Your task to perform on an android device: Open the web browser Image 0: 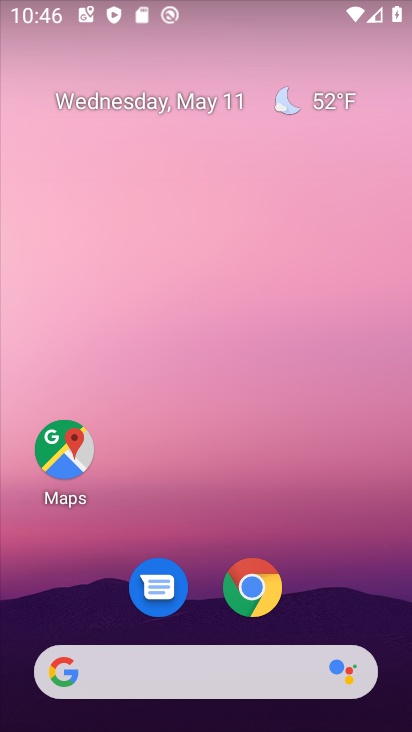
Step 0: click (236, 204)
Your task to perform on an android device: Open the web browser Image 1: 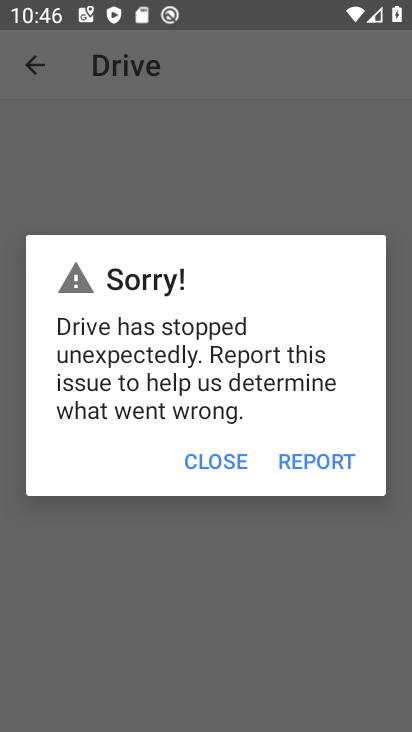
Step 1: press home button
Your task to perform on an android device: Open the web browser Image 2: 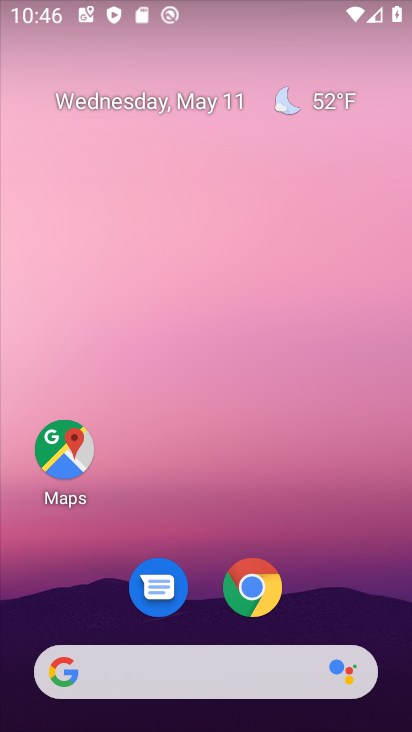
Step 2: drag from (242, 708) to (295, 297)
Your task to perform on an android device: Open the web browser Image 3: 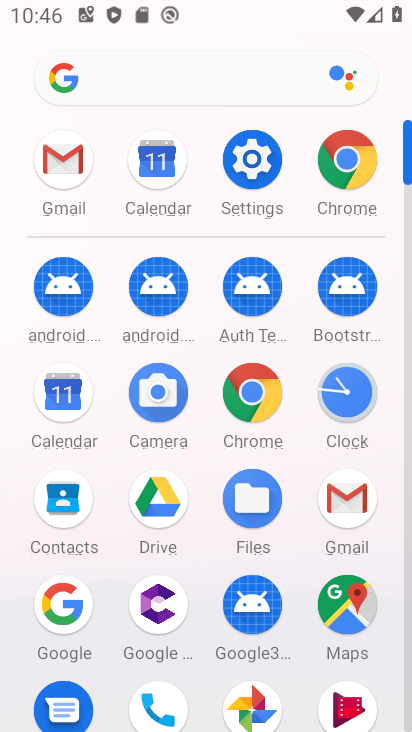
Step 3: click (344, 165)
Your task to perform on an android device: Open the web browser Image 4: 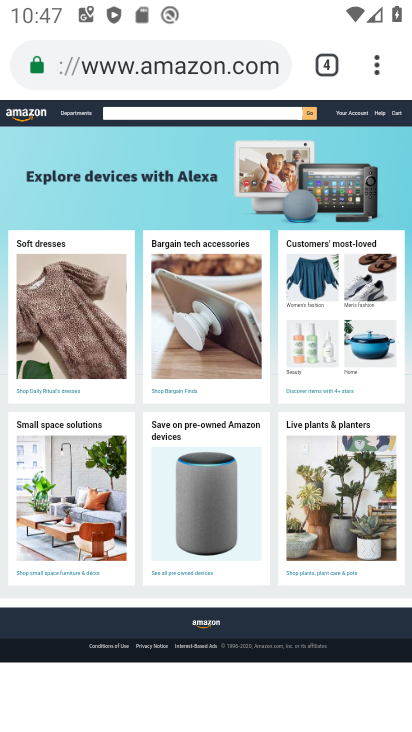
Step 4: click (216, 67)
Your task to perform on an android device: Open the web browser Image 5: 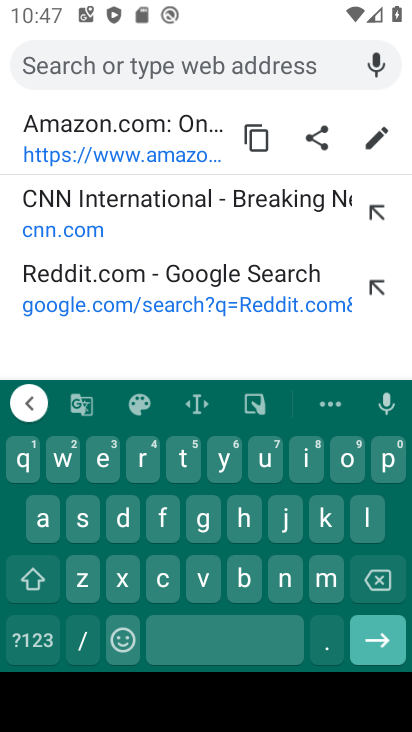
Step 5: task complete